Your task to perform on an android device: turn on showing notifications on the lock screen Image 0: 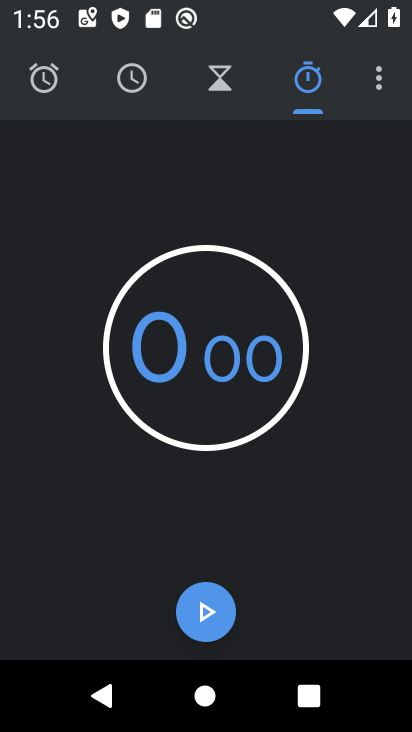
Step 0: press back button
Your task to perform on an android device: turn on showing notifications on the lock screen Image 1: 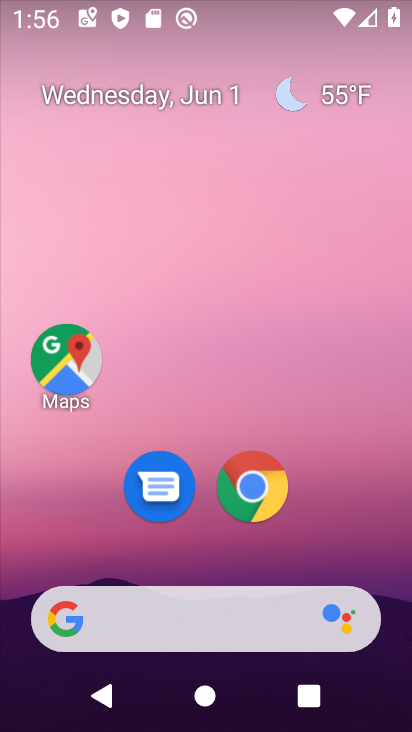
Step 1: drag from (214, 421) to (257, 11)
Your task to perform on an android device: turn on showing notifications on the lock screen Image 2: 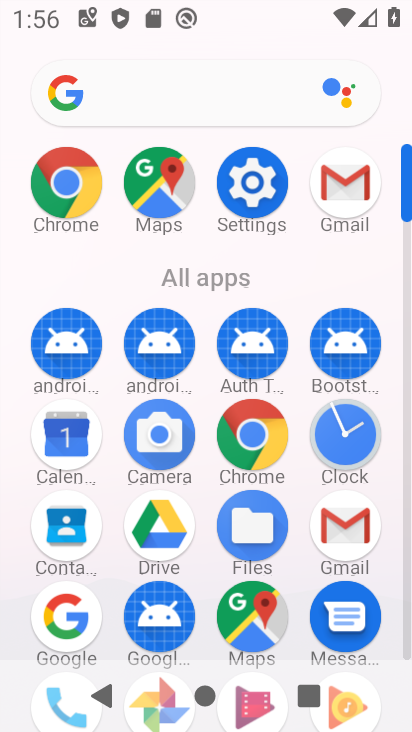
Step 2: click (240, 175)
Your task to perform on an android device: turn on showing notifications on the lock screen Image 3: 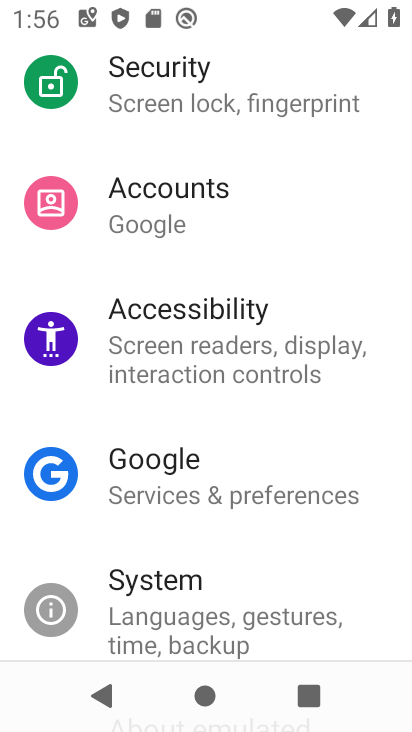
Step 3: drag from (222, 206) to (169, 691)
Your task to perform on an android device: turn on showing notifications on the lock screen Image 4: 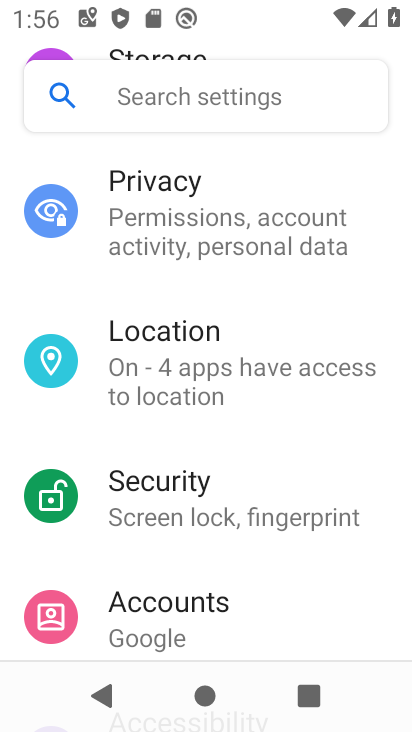
Step 4: drag from (200, 233) to (148, 723)
Your task to perform on an android device: turn on showing notifications on the lock screen Image 5: 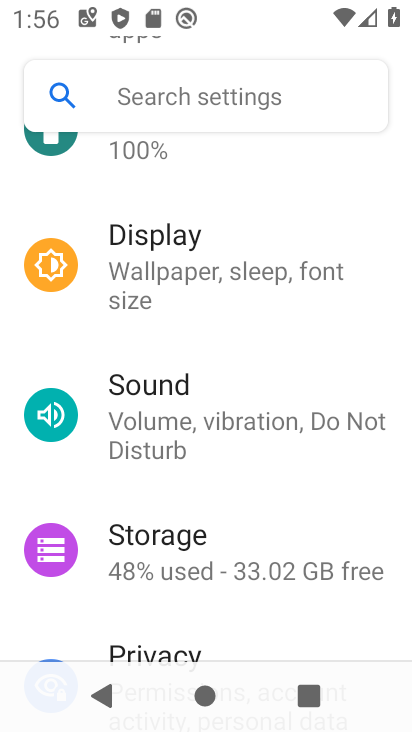
Step 5: drag from (199, 249) to (199, 652)
Your task to perform on an android device: turn on showing notifications on the lock screen Image 6: 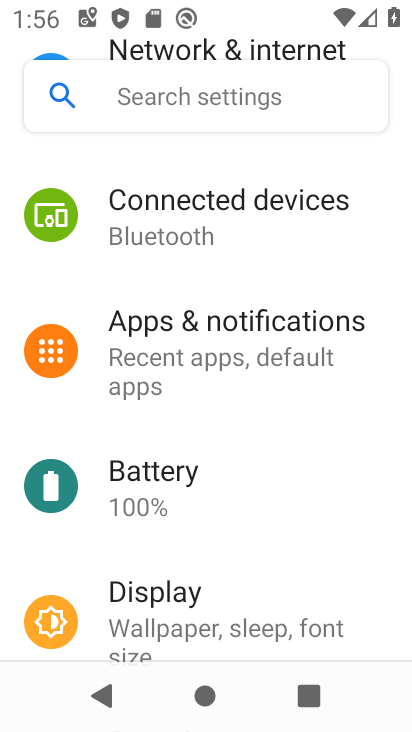
Step 6: drag from (280, 158) to (244, 618)
Your task to perform on an android device: turn on showing notifications on the lock screen Image 7: 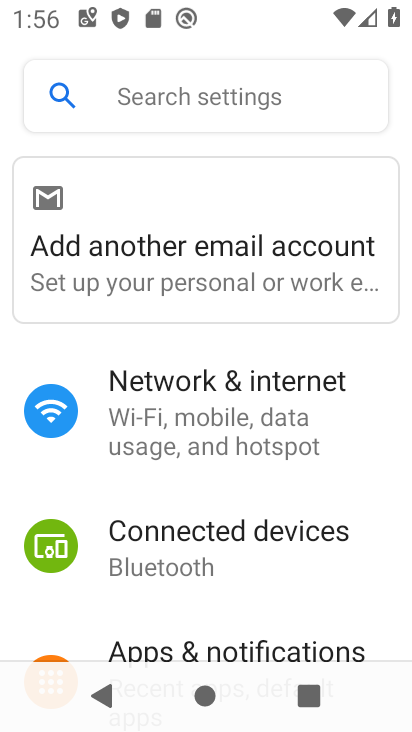
Step 7: click (213, 645)
Your task to perform on an android device: turn on showing notifications on the lock screen Image 8: 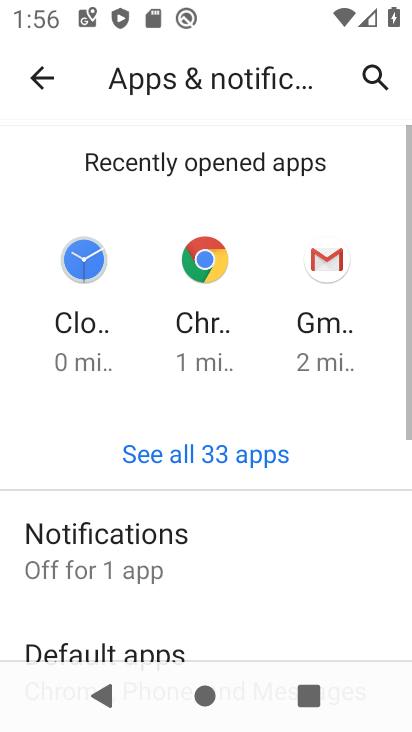
Step 8: drag from (203, 625) to (250, 287)
Your task to perform on an android device: turn on showing notifications on the lock screen Image 9: 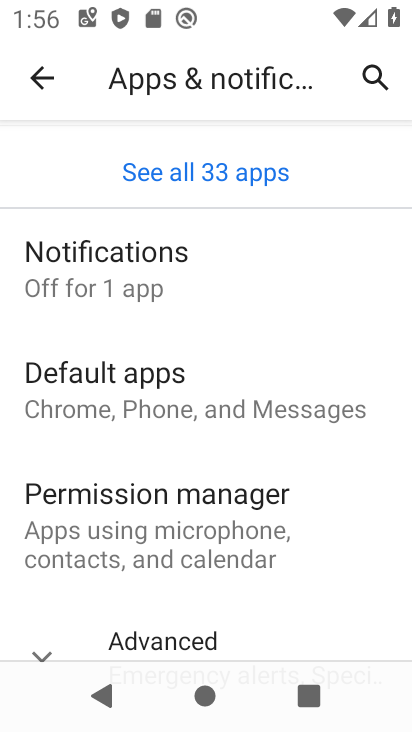
Step 9: click (91, 250)
Your task to perform on an android device: turn on showing notifications on the lock screen Image 10: 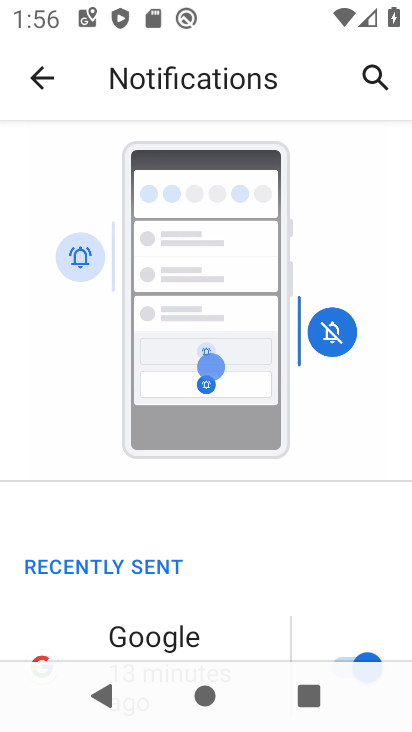
Step 10: drag from (164, 598) to (250, 103)
Your task to perform on an android device: turn on showing notifications on the lock screen Image 11: 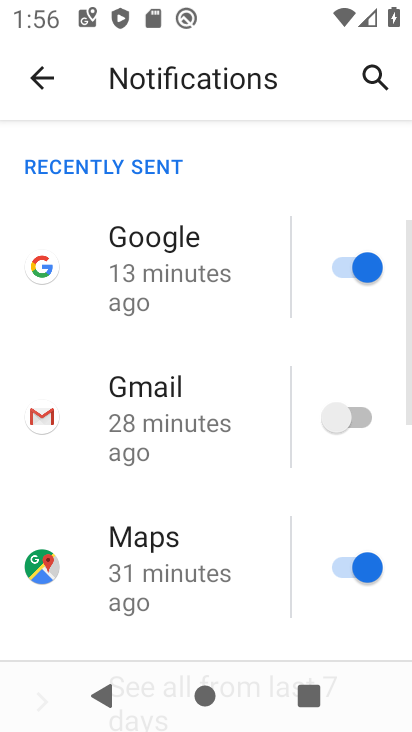
Step 11: drag from (195, 578) to (257, 81)
Your task to perform on an android device: turn on showing notifications on the lock screen Image 12: 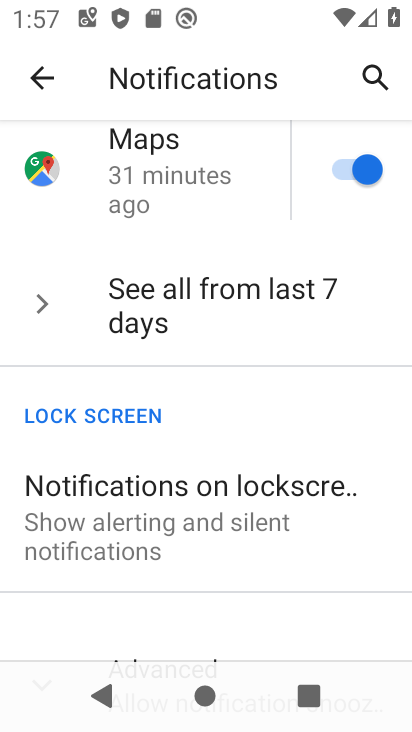
Step 12: click (202, 475)
Your task to perform on an android device: turn on showing notifications on the lock screen Image 13: 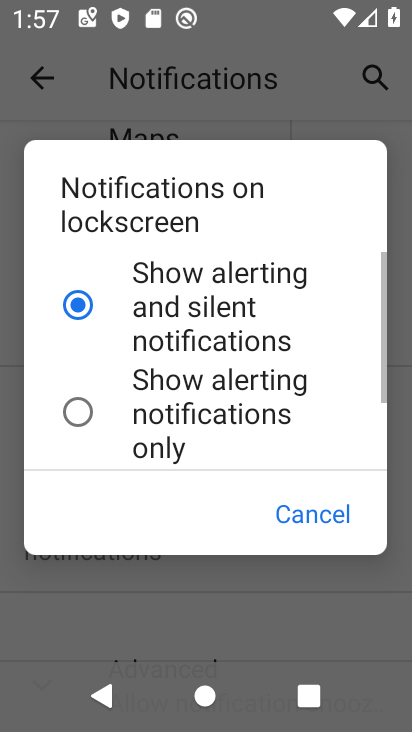
Step 13: task complete